Your task to perform on an android device: empty trash in the gmail app Image 0: 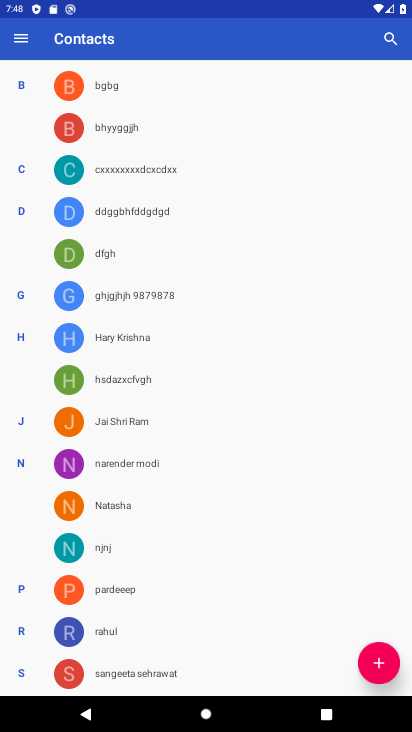
Step 0: press home button
Your task to perform on an android device: empty trash in the gmail app Image 1: 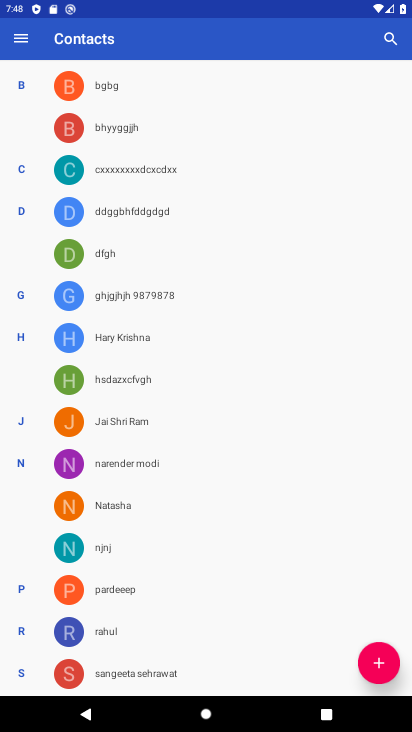
Step 1: drag from (114, 608) to (246, 78)
Your task to perform on an android device: empty trash in the gmail app Image 2: 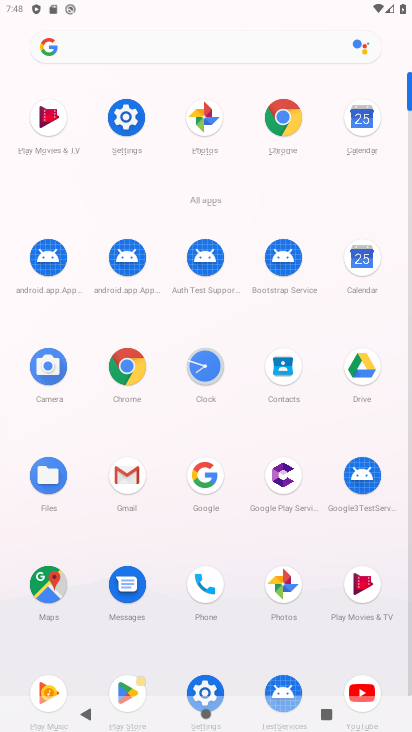
Step 2: click (110, 457)
Your task to perform on an android device: empty trash in the gmail app Image 3: 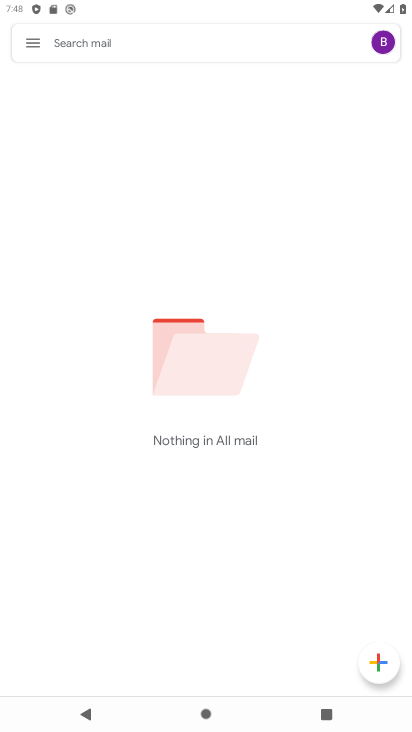
Step 3: drag from (198, 587) to (256, 346)
Your task to perform on an android device: empty trash in the gmail app Image 4: 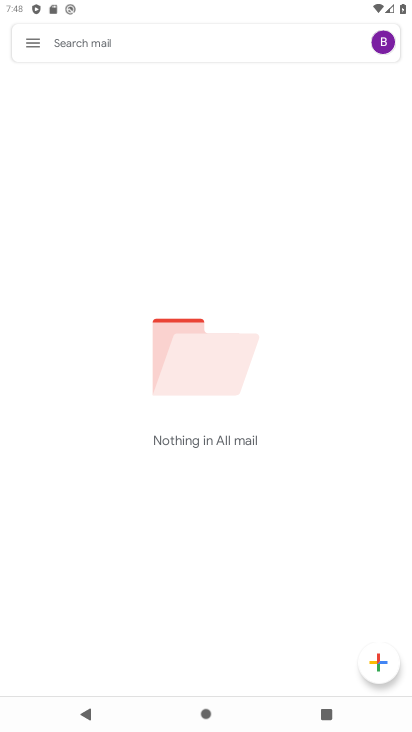
Step 4: click (27, 44)
Your task to perform on an android device: empty trash in the gmail app Image 5: 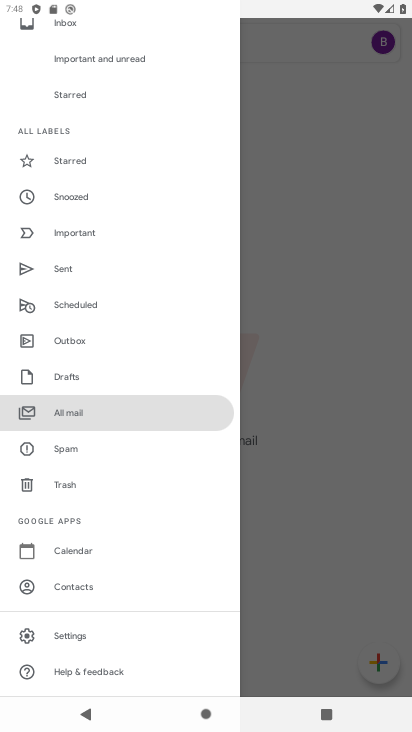
Step 5: click (56, 478)
Your task to perform on an android device: empty trash in the gmail app Image 6: 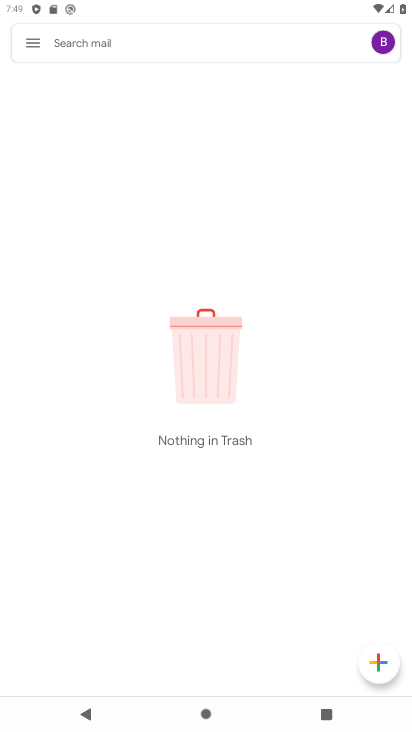
Step 6: task complete